Your task to perform on an android device: Show me the alarms in the clock app Image 0: 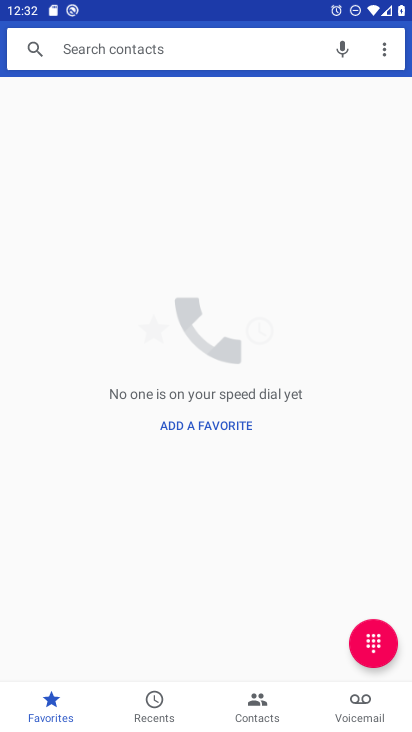
Step 0: press home button
Your task to perform on an android device: Show me the alarms in the clock app Image 1: 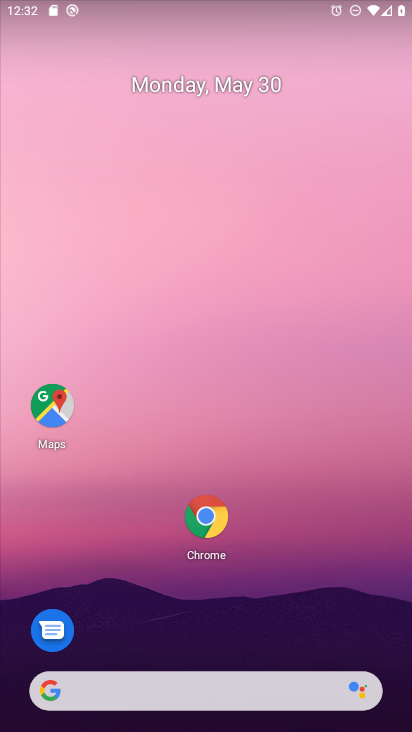
Step 1: drag from (137, 691) to (259, 118)
Your task to perform on an android device: Show me the alarms in the clock app Image 2: 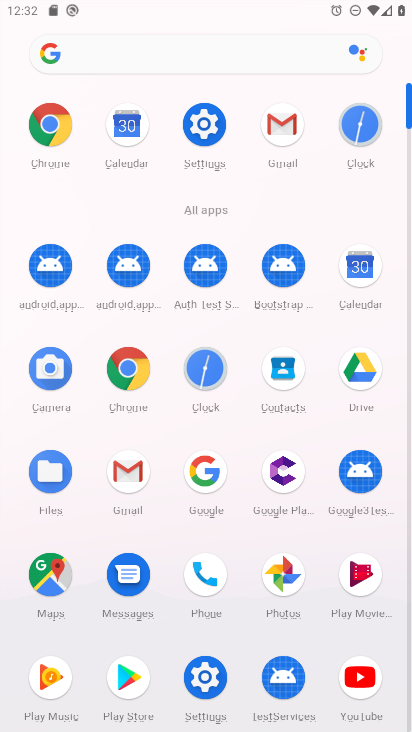
Step 2: click (360, 137)
Your task to perform on an android device: Show me the alarms in the clock app Image 3: 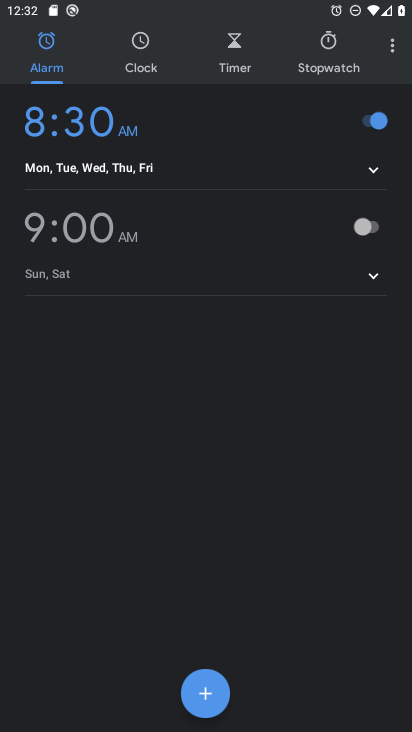
Step 3: task complete